Your task to perform on an android device: find snoozed emails in the gmail app Image 0: 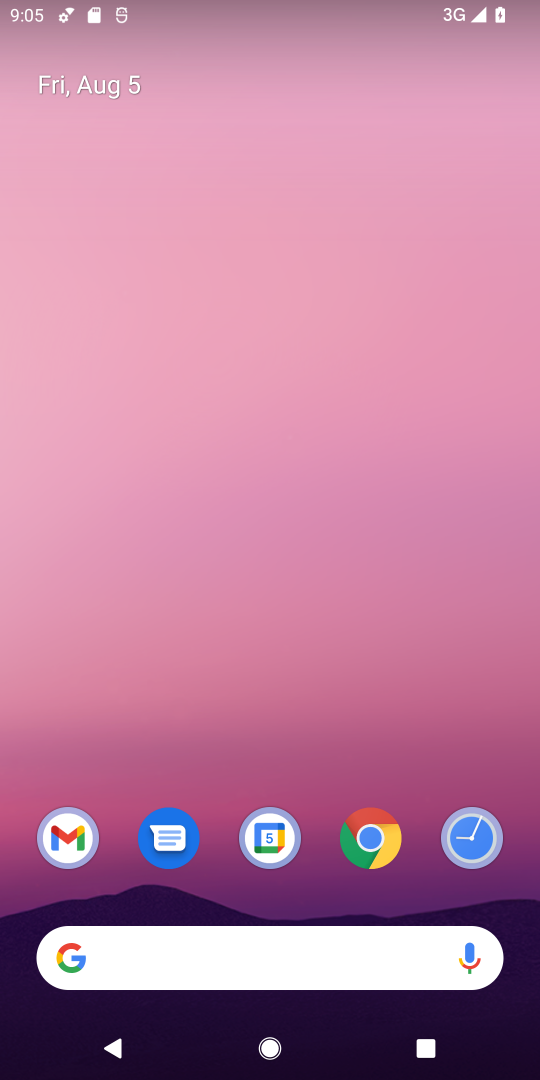
Step 0: click (58, 825)
Your task to perform on an android device: find snoozed emails in the gmail app Image 1: 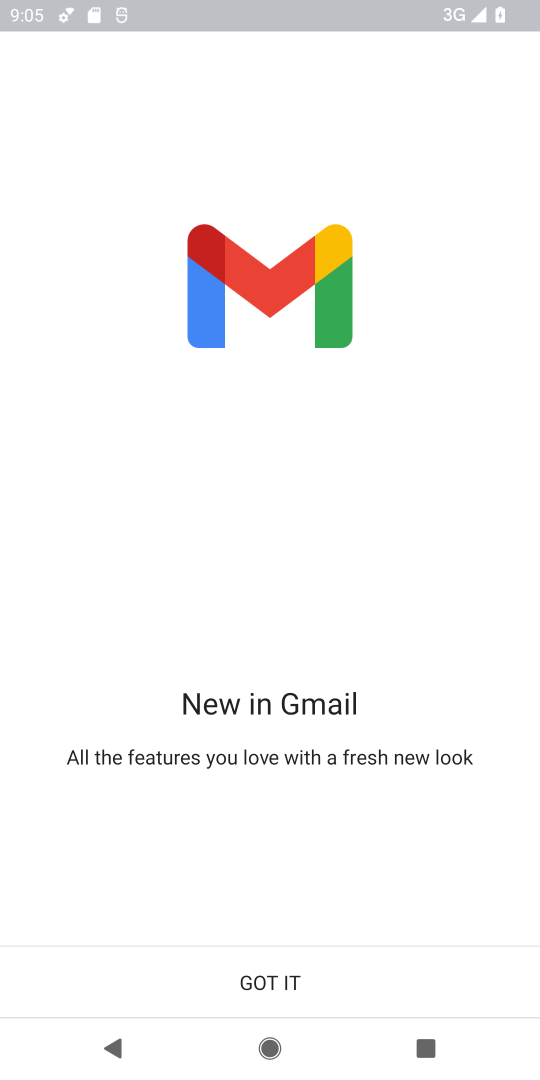
Step 1: click (262, 979)
Your task to perform on an android device: find snoozed emails in the gmail app Image 2: 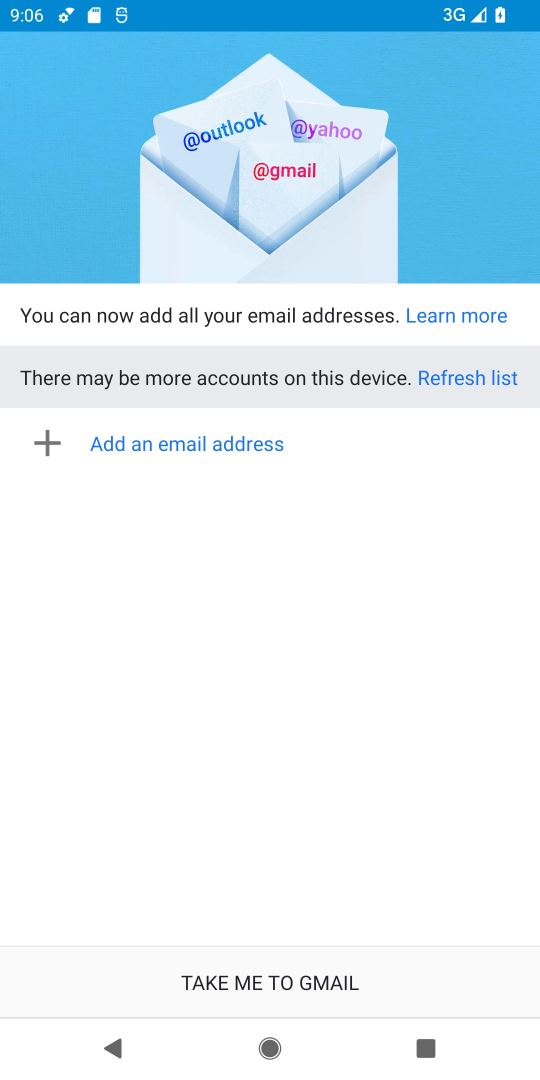
Step 2: task complete